Your task to perform on an android device: Show me popular games on the Play Store Image 0: 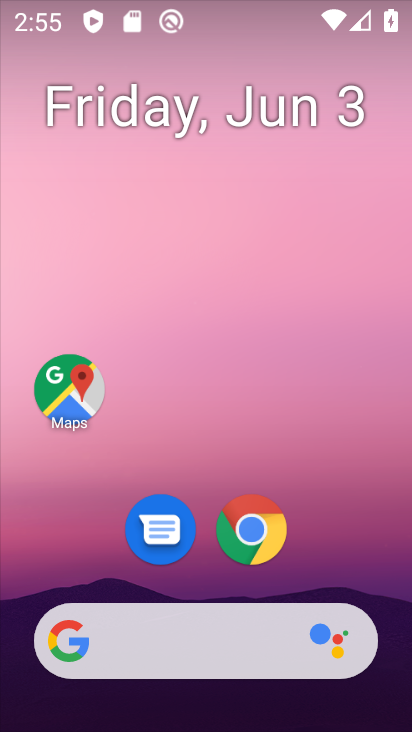
Step 0: drag from (392, 635) to (312, 76)
Your task to perform on an android device: Show me popular games on the Play Store Image 1: 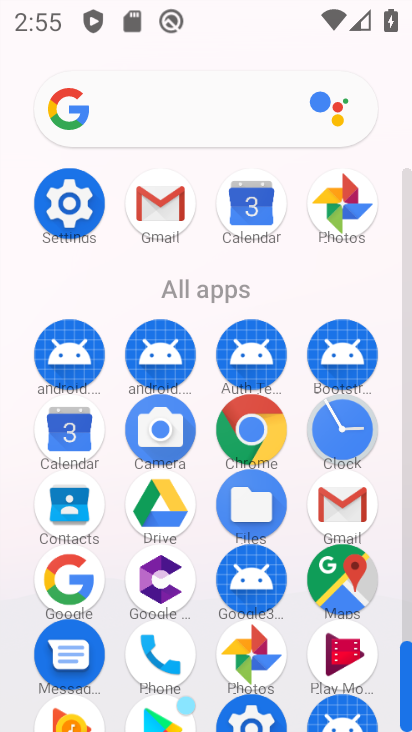
Step 1: drag from (206, 666) to (202, 319)
Your task to perform on an android device: Show me popular games on the Play Store Image 2: 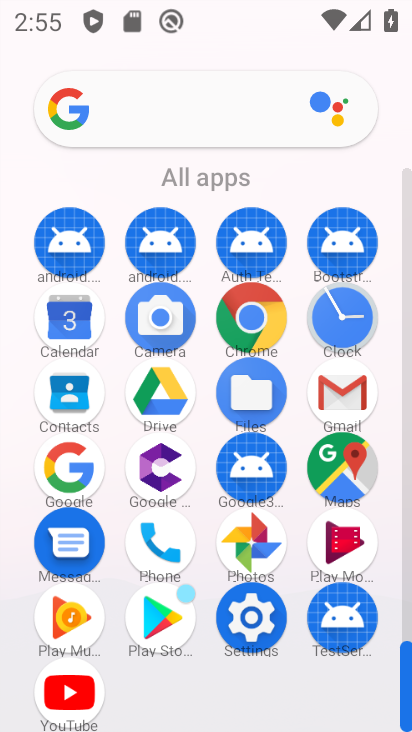
Step 2: click (172, 590)
Your task to perform on an android device: Show me popular games on the Play Store Image 3: 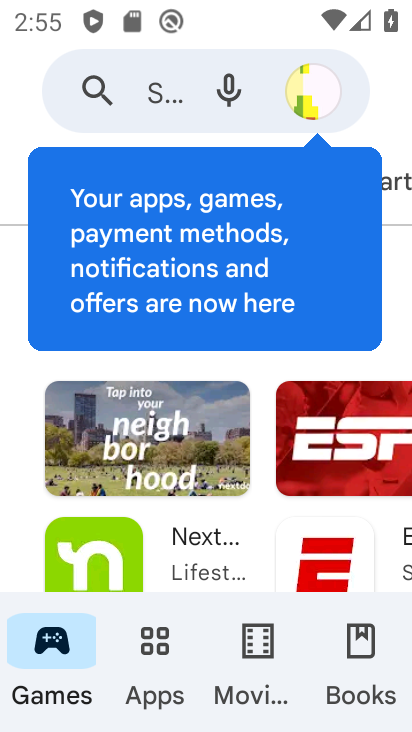
Step 3: click (181, 86)
Your task to perform on an android device: Show me popular games on the Play Store Image 4: 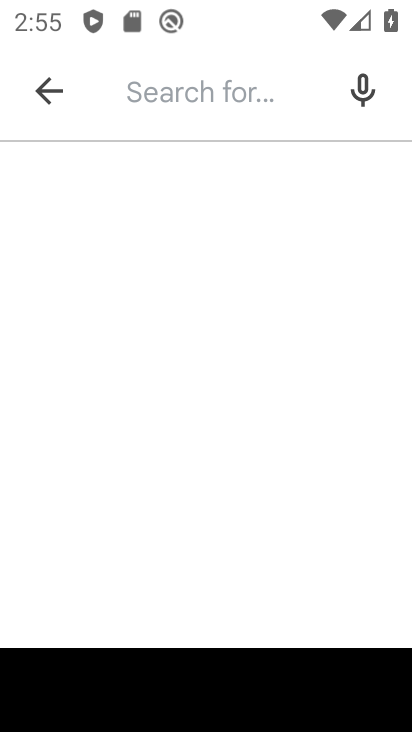
Step 4: type "popular games"
Your task to perform on an android device: Show me popular games on the Play Store Image 5: 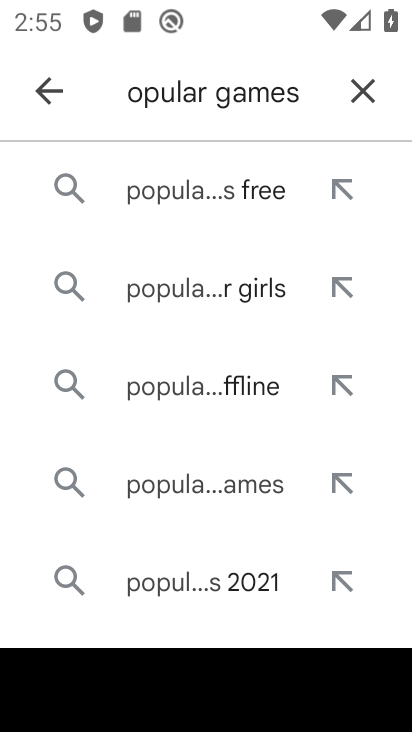
Step 5: click (185, 491)
Your task to perform on an android device: Show me popular games on the Play Store Image 6: 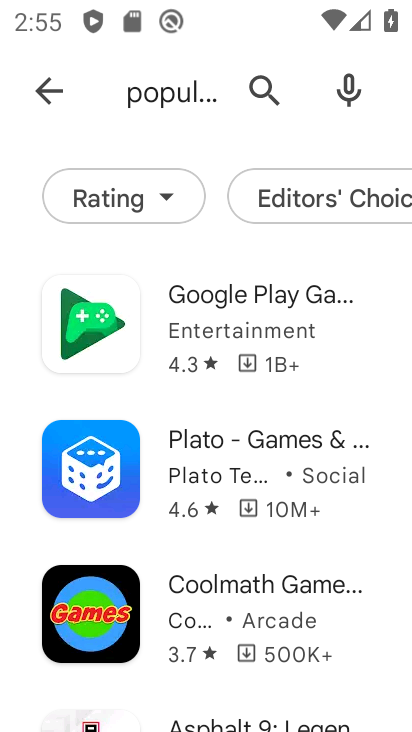
Step 6: task complete